Your task to perform on an android device: Open the web browser Image 0: 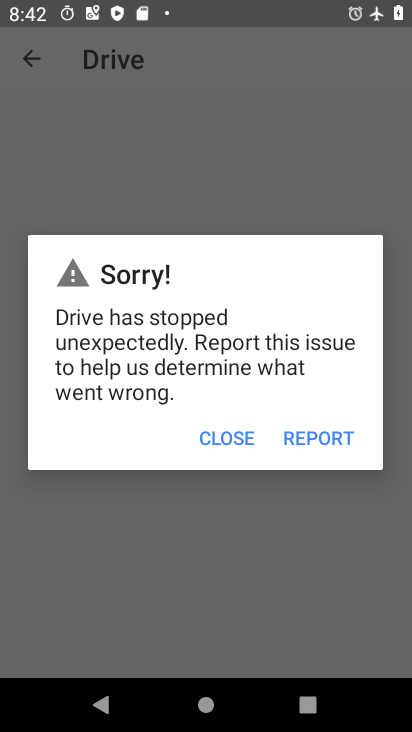
Step 0: press home button
Your task to perform on an android device: Open the web browser Image 1: 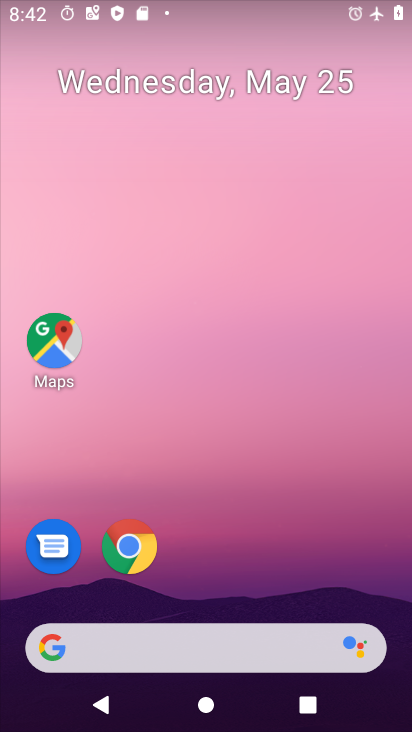
Step 1: drag from (197, 590) to (220, 119)
Your task to perform on an android device: Open the web browser Image 2: 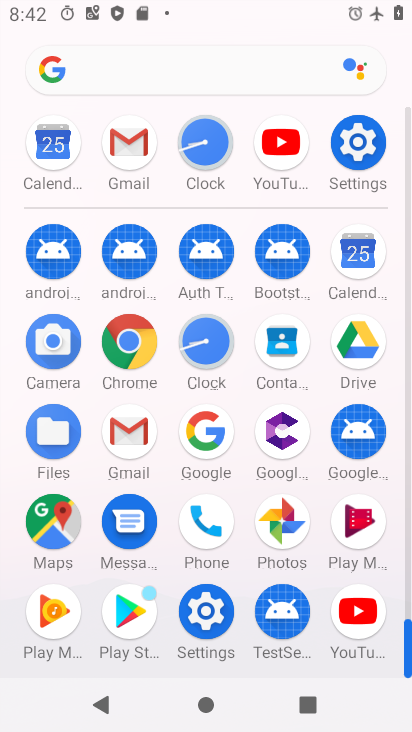
Step 2: click (123, 373)
Your task to perform on an android device: Open the web browser Image 3: 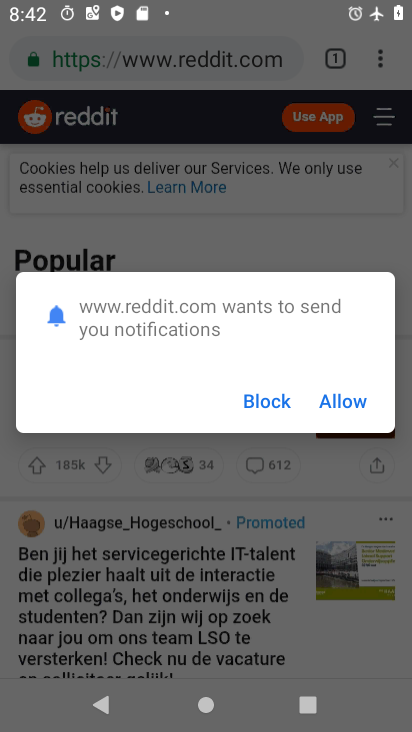
Step 3: task complete